Your task to perform on an android device: turn off sleep mode Image 0: 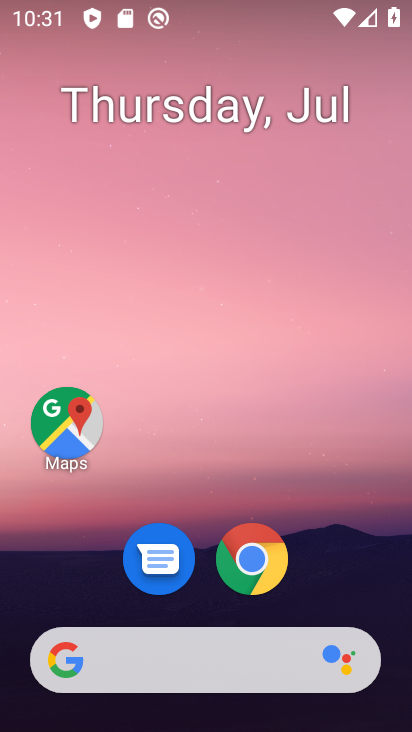
Step 0: drag from (55, 530) to (181, 23)
Your task to perform on an android device: turn off sleep mode Image 1: 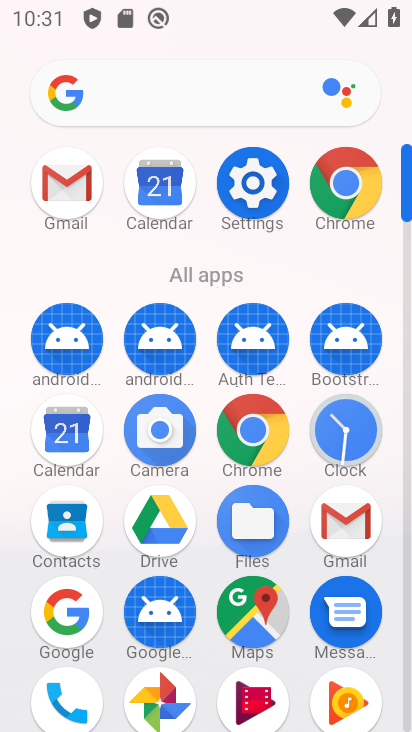
Step 1: click (249, 169)
Your task to perform on an android device: turn off sleep mode Image 2: 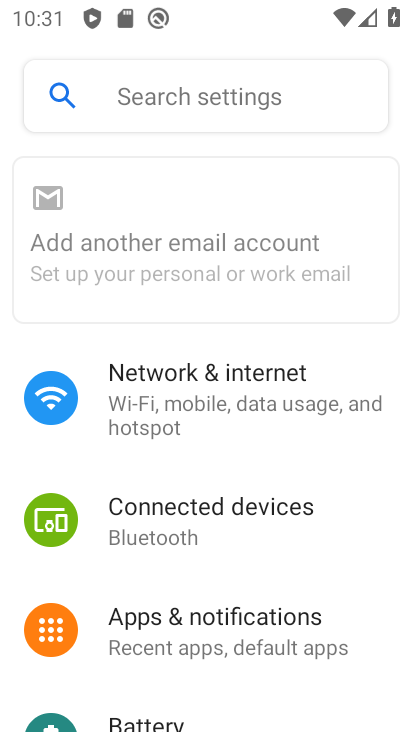
Step 2: click (209, 101)
Your task to perform on an android device: turn off sleep mode Image 3: 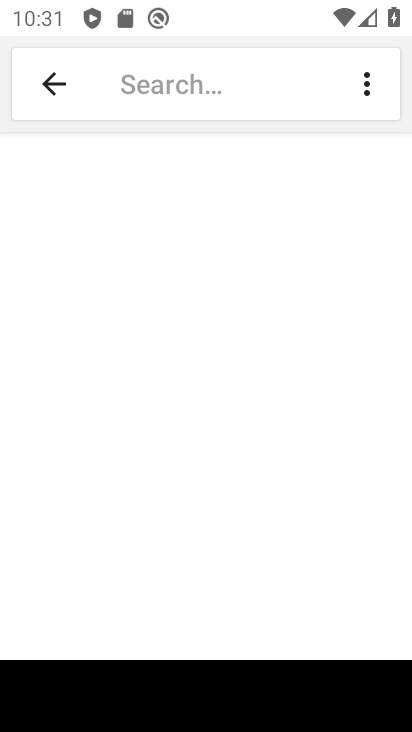
Step 3: type "sleep mode"
Your task to perform on an android device: turn off sleep mode Image 4: 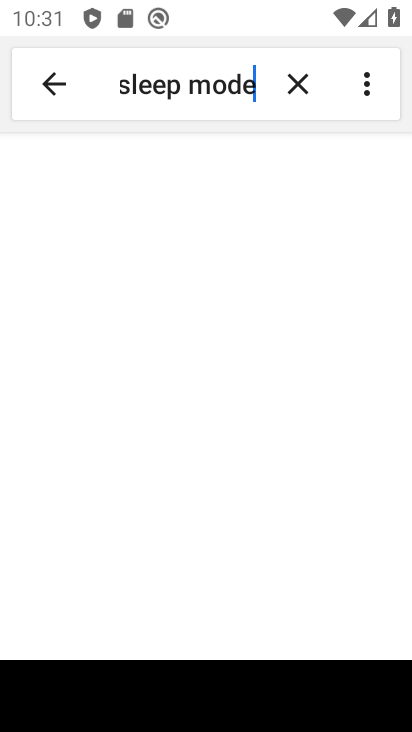
Step 4: task complete